Your task to perform on an android device: install app "Messages" Image 0: 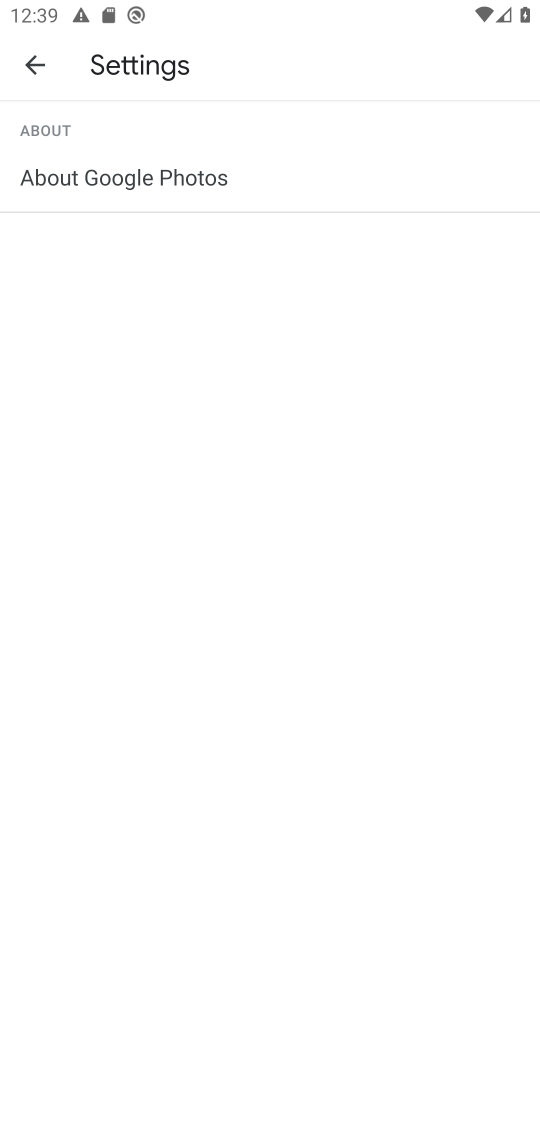
Step 0: press home button
Your task to perform on an android device: install app "Messages" Image 1: 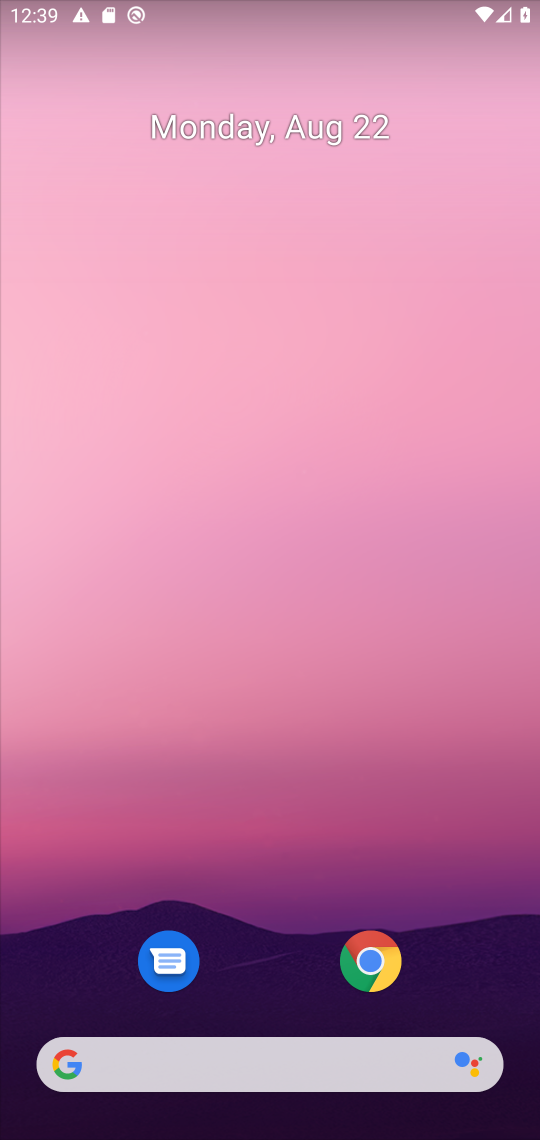
Step 1: drag from (466, 954) to (454, 124)
Your task to perform on an android device: install app "Messages" Image 2: 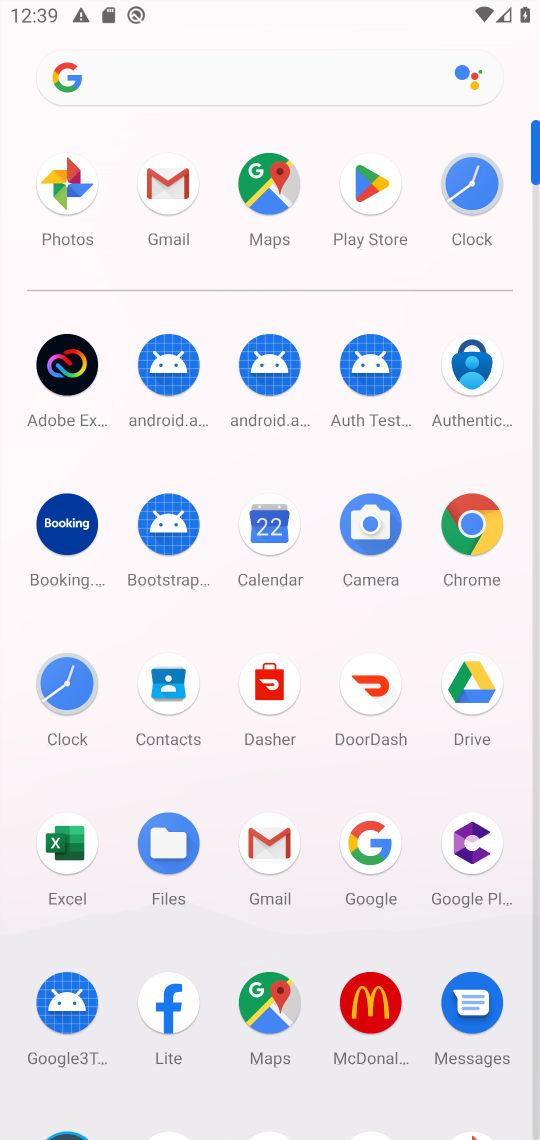
Step 2: click (372, 192)
Your task to perform on an android device: install app "Messages" Image 3: 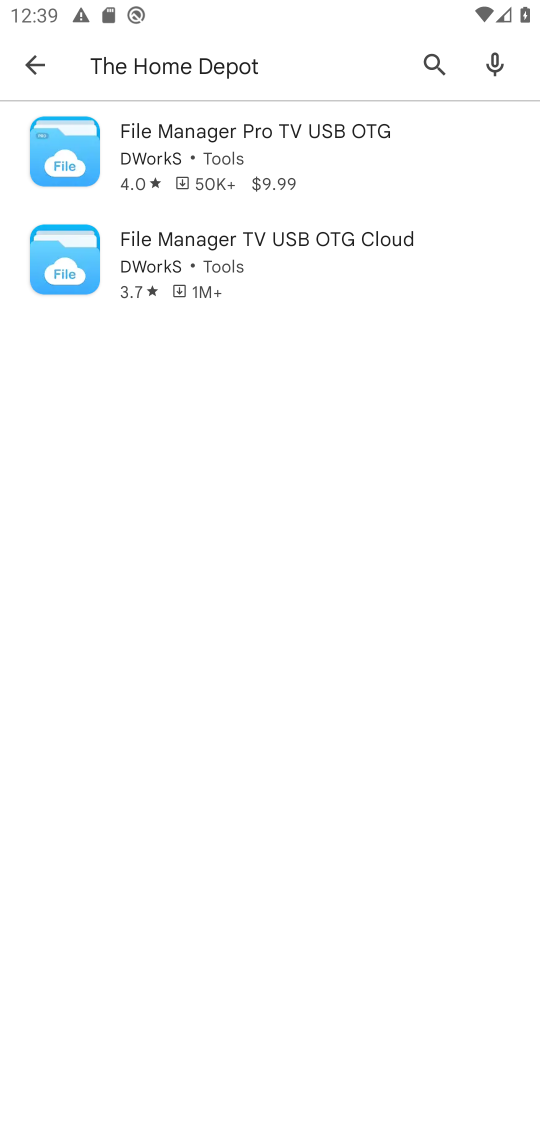
Step 3: press back button
Your task to perform on an android device: install app "Messages" Image 4: 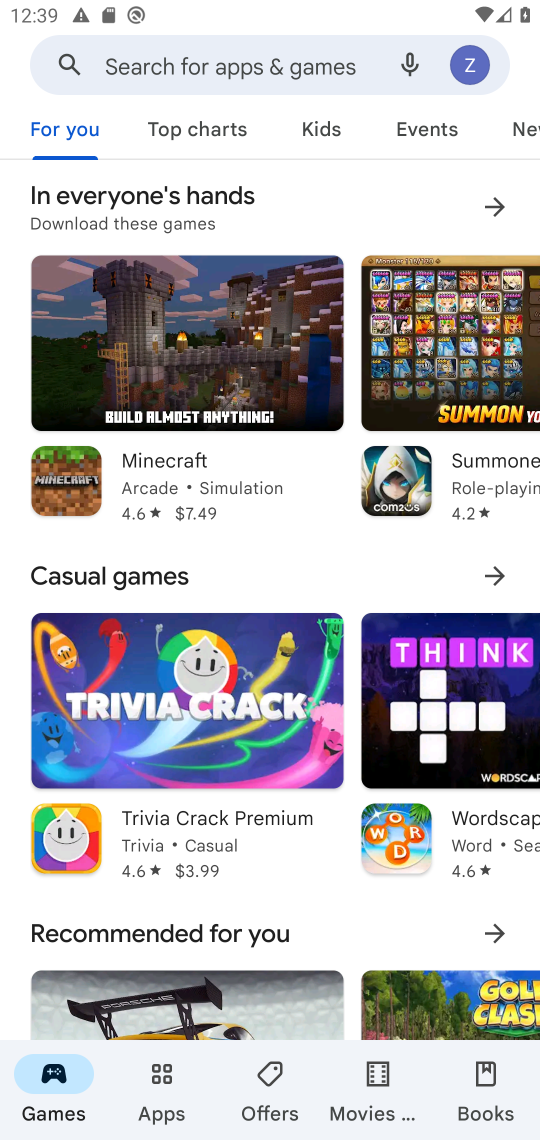
Step 4: click (295, 74)
Your task to perform on an android device: install app "Messages" Image 5: 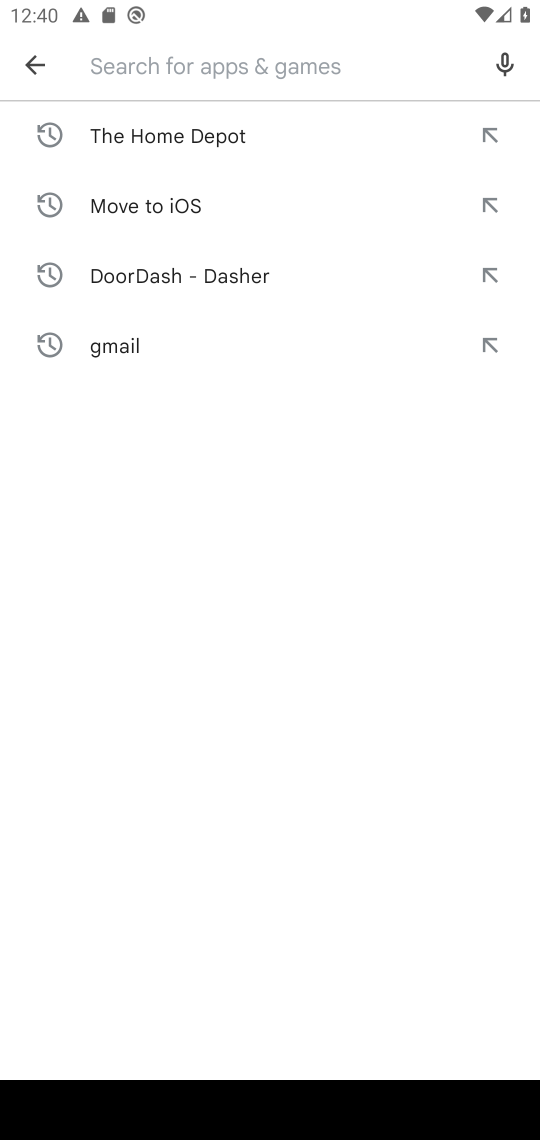
Step 5: type "messages"
Your task to perform on an android device: install app "Messages" Image 6: 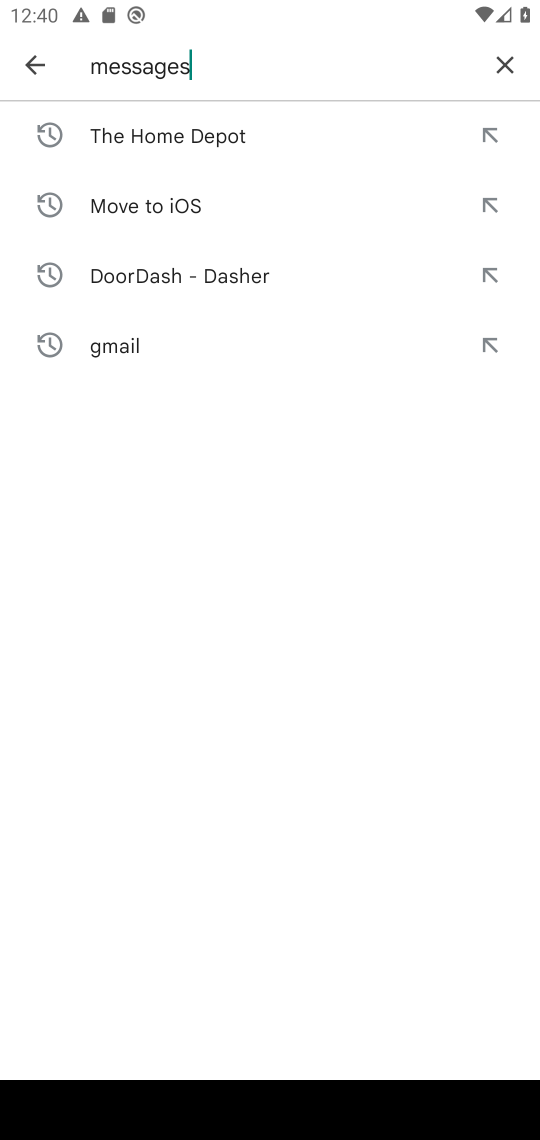
Step 6: press enter
Your task to perform on an android device: install app "Messages" Image 7: 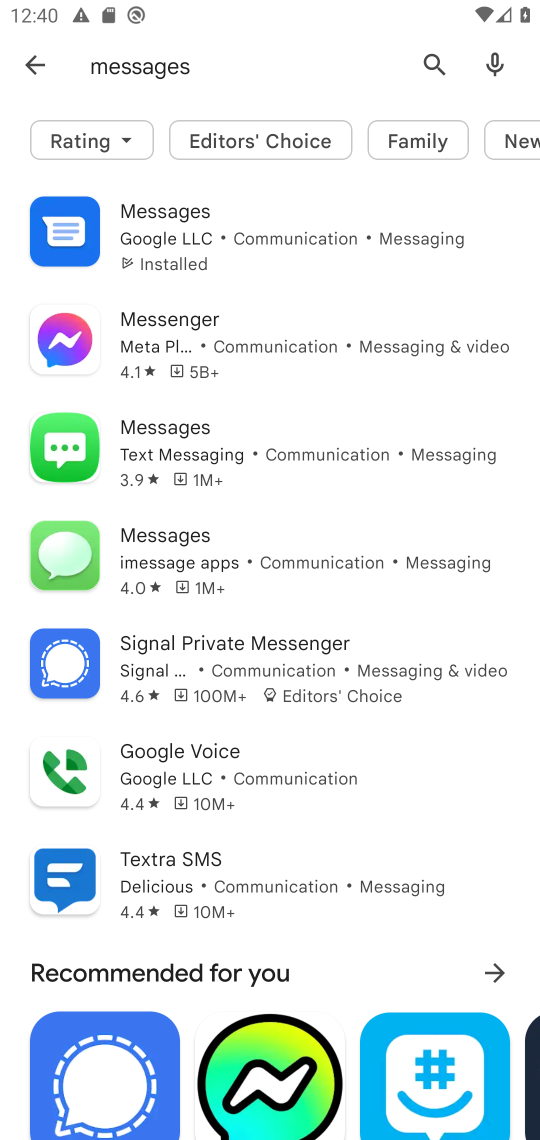
Step 7: click (230, 216)
Your task to perform on an android device: install app "Messages" Image 8: 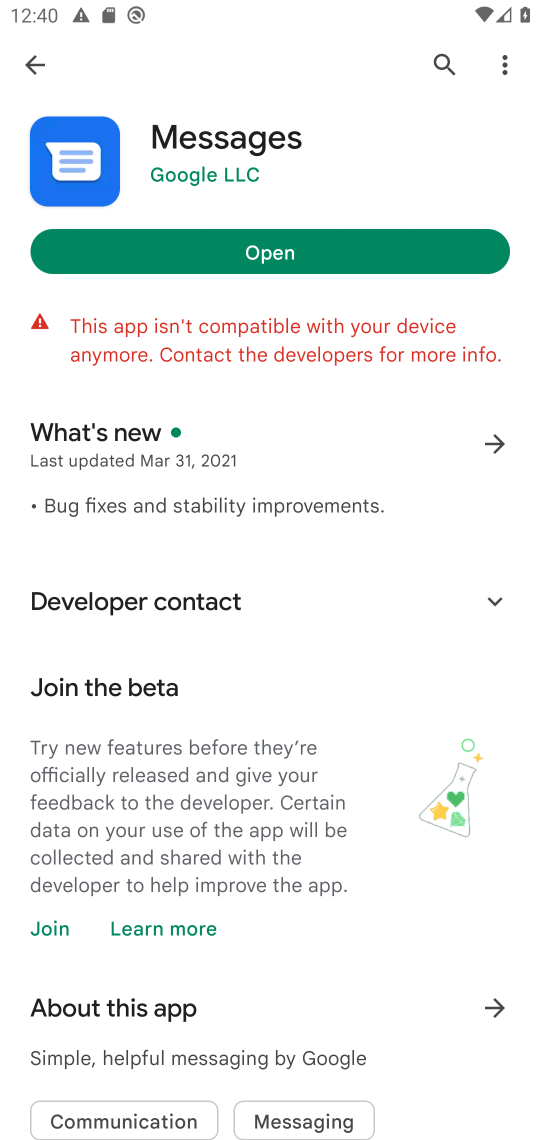
Step 8: task complete